Your task to perform on an android device: Open Google Maps Image 0: 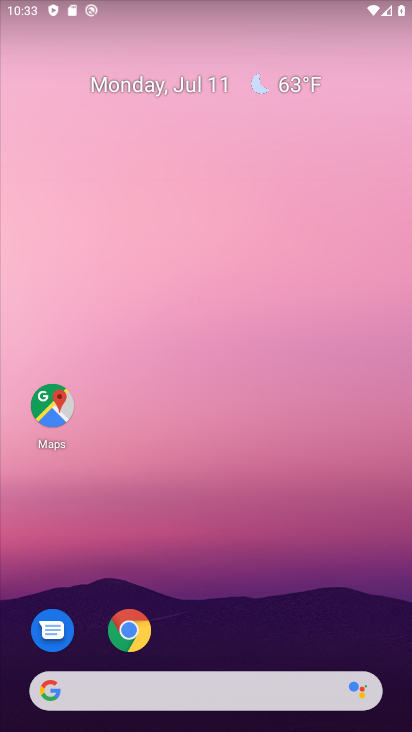
Step 0: click (55, 406)
Your task to perform on an android device: Open Google Maps Image 1: 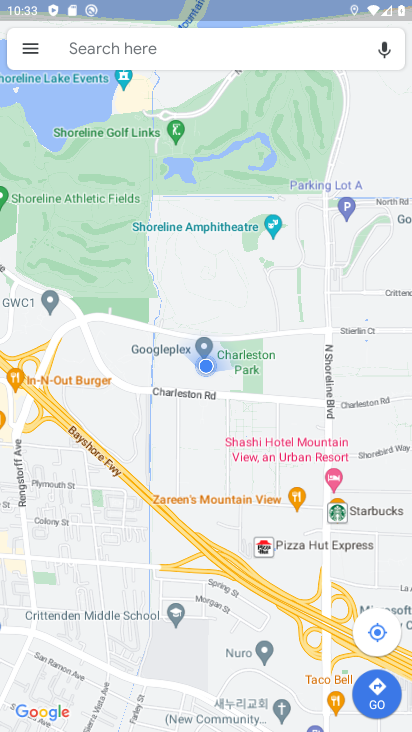
Step 1: task complete